Your task to perform on an android device: open device folders in google photos Image 0: 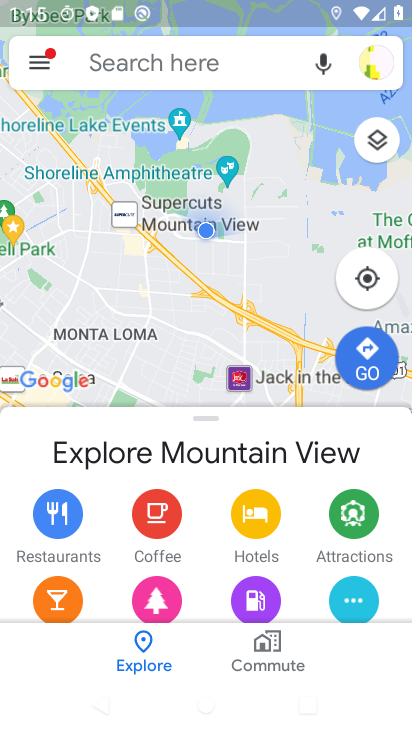
Step 0: press home button
Your task to perform on an android device: open device folders in google photos Image 1: 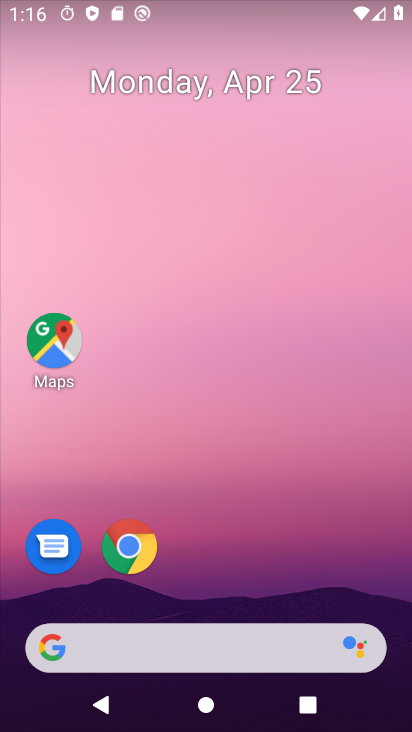
Step 1: drag from (194, 607) to (226, 62)
Your task to perform on an android device: open device folders in google photos Image 2: 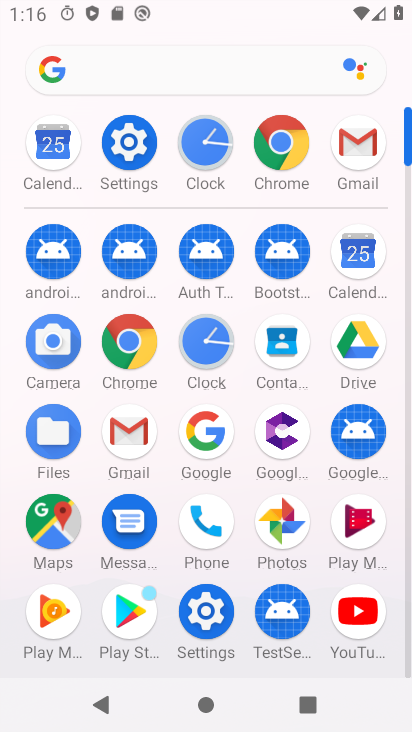
Step 2: click (289, 536)
Your task to perform on an android device: open device folders in google photos Image 3: 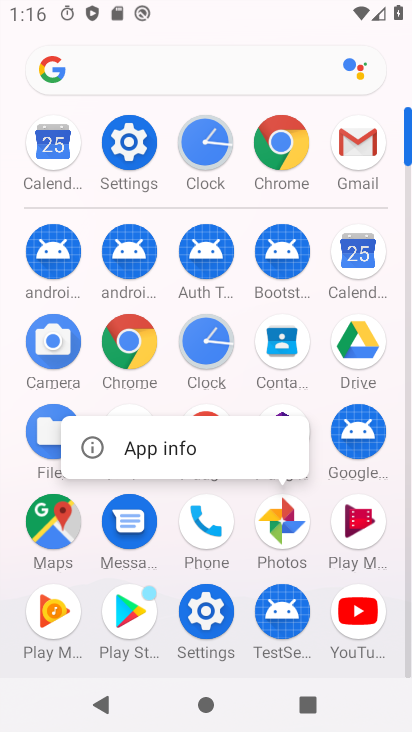
Step 3: click (283, 537)
Your task to perform on an android device: open device folders in google photos Image 4: 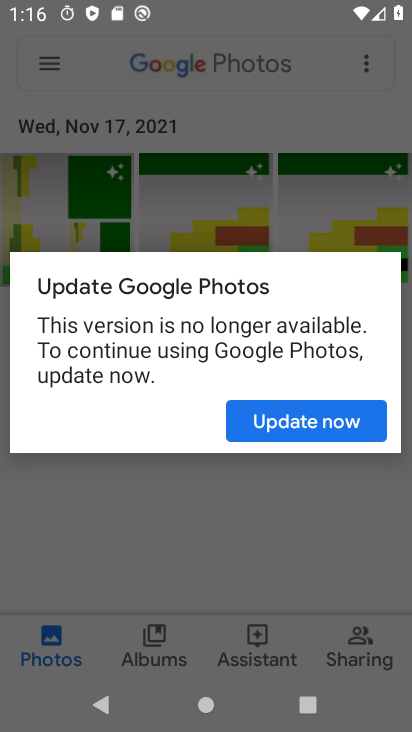
Step 4: click (239, 522)
Your task to perform on an android device: open device folders in google photos Image 5: 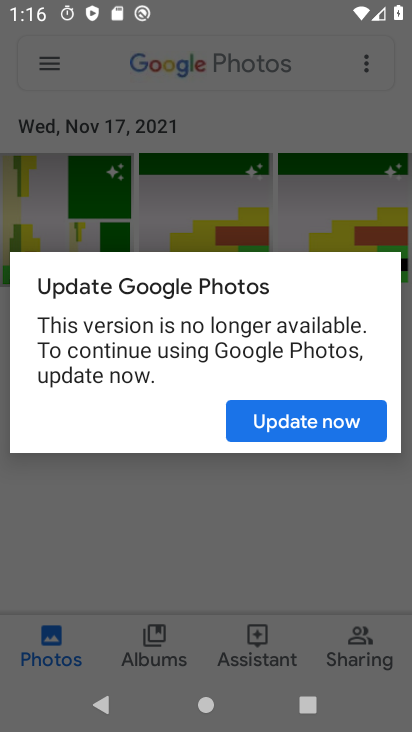
Step 5: click (281, 410)
Your task to perform on an android device: open device folders in google photos Image 6: 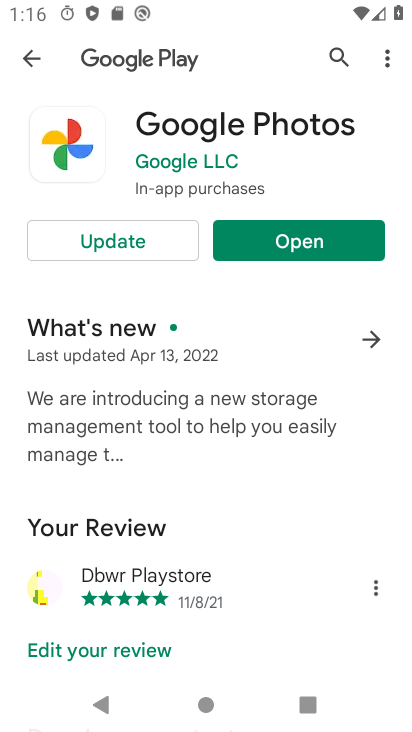
Step 6: click (300, 252)
Your task to perform on an android device: open device folders in google photos Image 7: 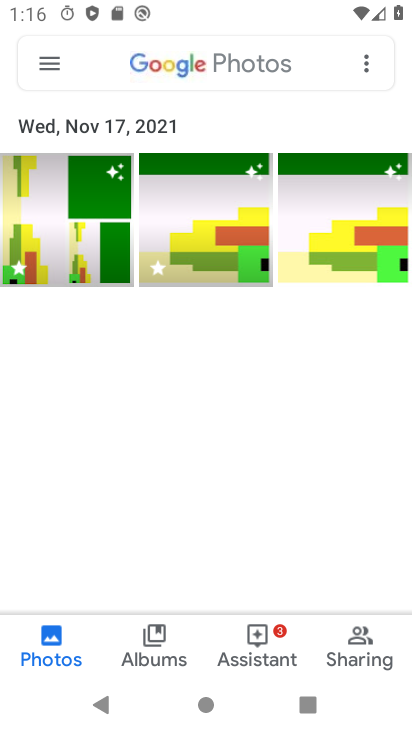
Step 7: click (44, 69)
Your task to perform on an android device: open device folders in google photos Image 8: 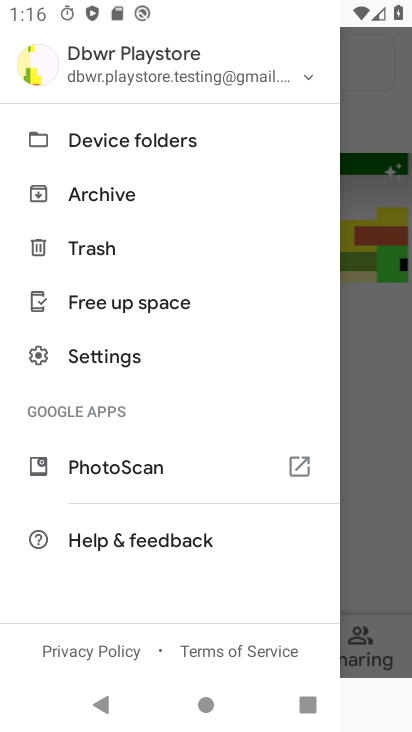
Step 8: click (99, 151)
Your task to perform on an android device: open device folders in google photos Image 9: 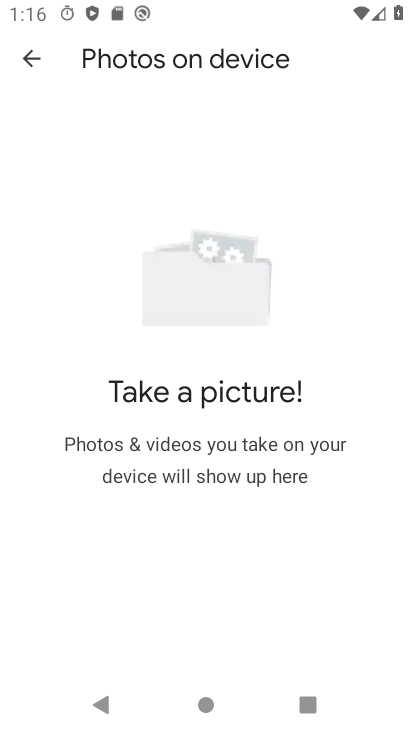
Step 9: task complete